Your task to perform on an android device: create a new album in the google photos Image 0: 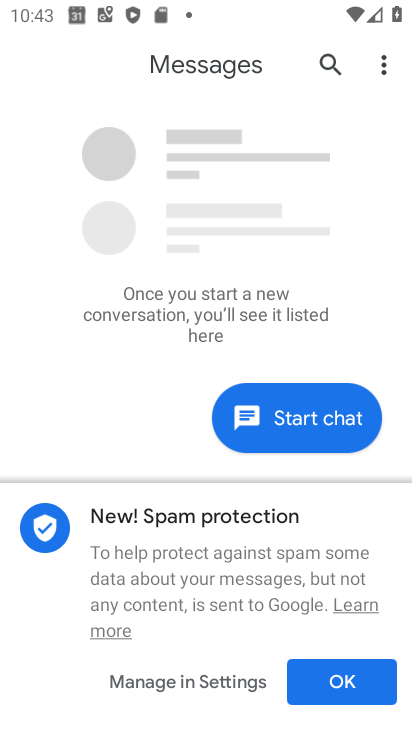
Step 0: press home button
Your task to perform on an android device: create a new album in the google photos Image 1: 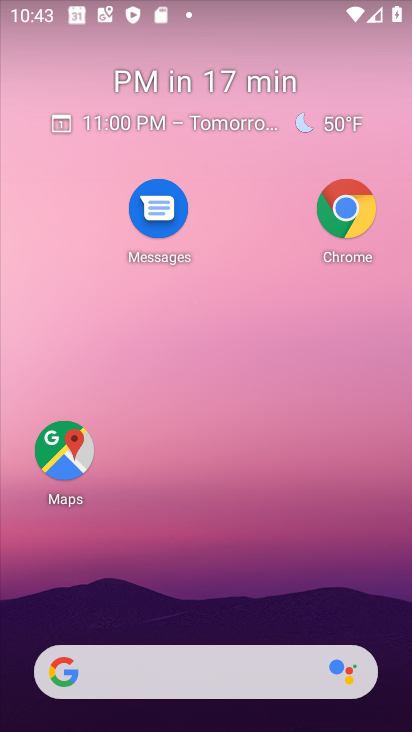
Step 1: drag from (192, 645) to (368, 17)
Your task to perform on an android device: create a new album in the google photos Image 2: 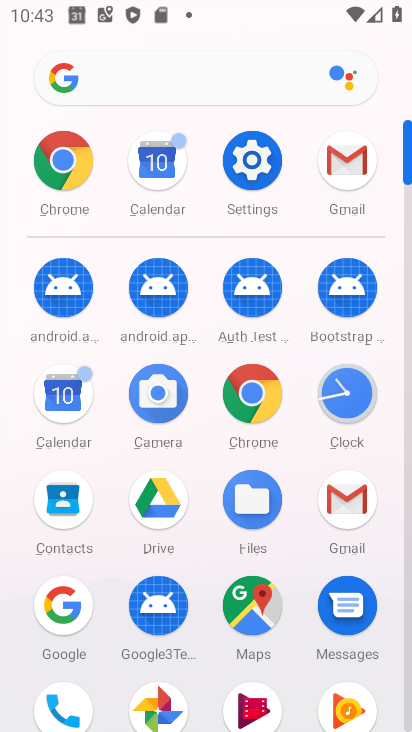
Step 2: click (163, 687)
Your task to perform on an android device: create a new album in the google photos Image 3: 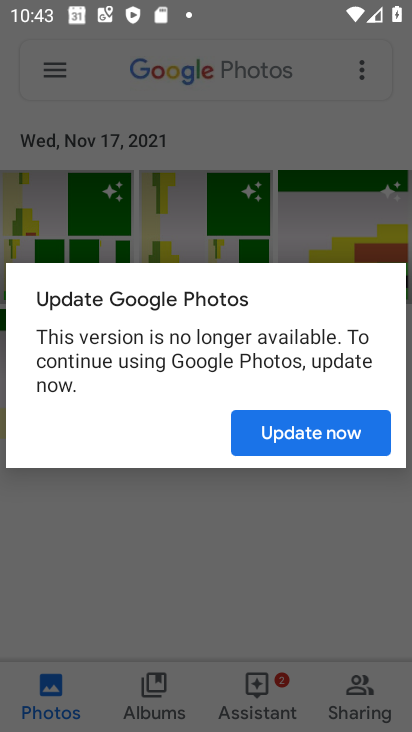
Step 3: click (80, 219)
Your task to perform on an android device: create a new album in the google photos Image 4: 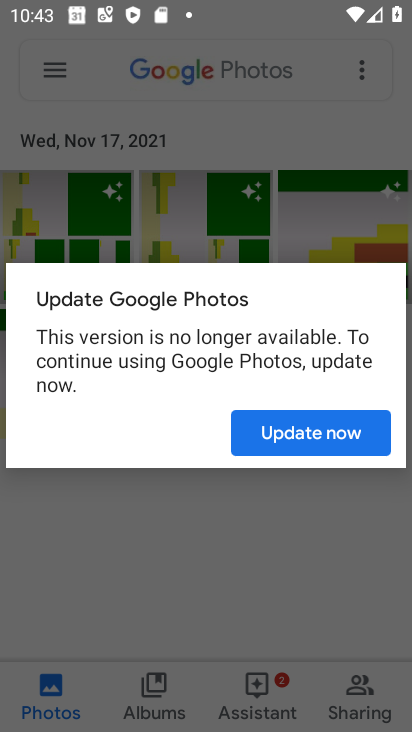
Step 4: click (291, 445)
Your task to perform on an android device: create a new album in the google photos Image 5: 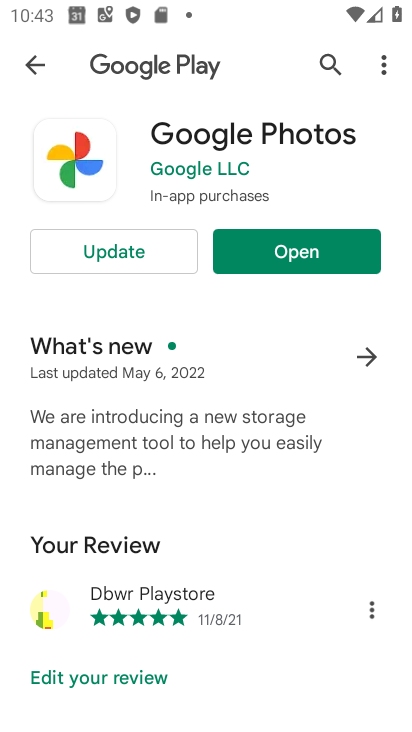
Step 5: click (274, 252)
Your task to perform on an android device: create a new album in the google photos Image 6: 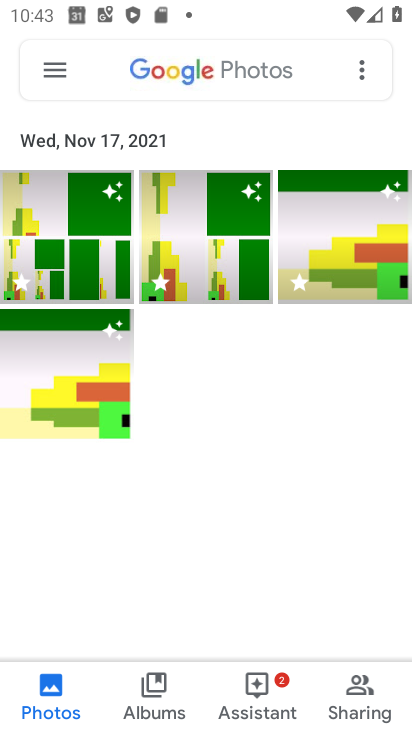
Step 6: click (124, 262)
Your task to perform on an android device: create a new album in the google photos Image 7: 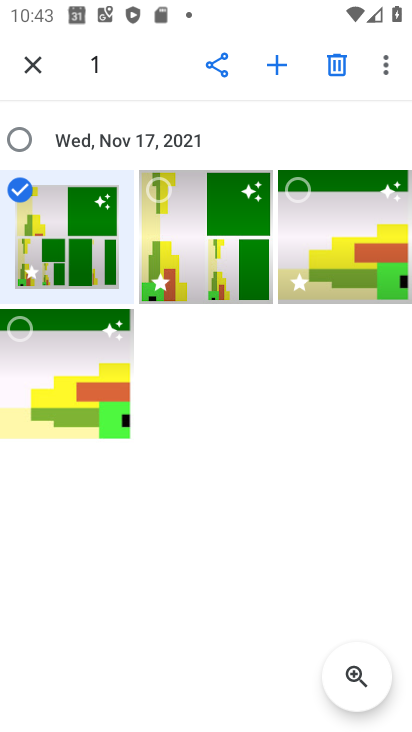
Step 7: click (274, 77)
Your task to perform on an android device: create a new album in the google photos Image 8: 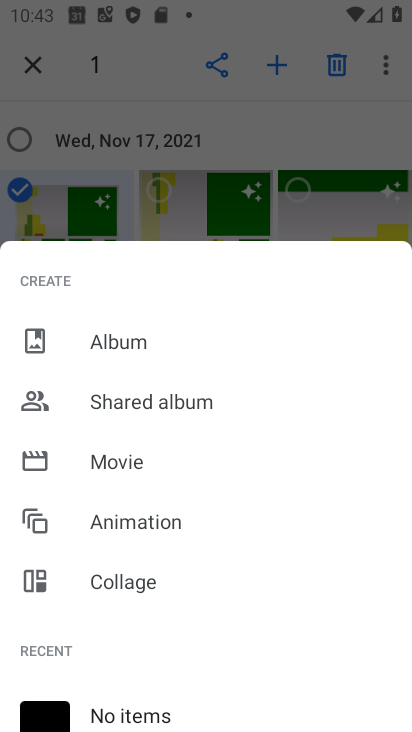
Step 8: click (171, 349)
Your task to perform on an android device: create a new album in the google photos Image 9: 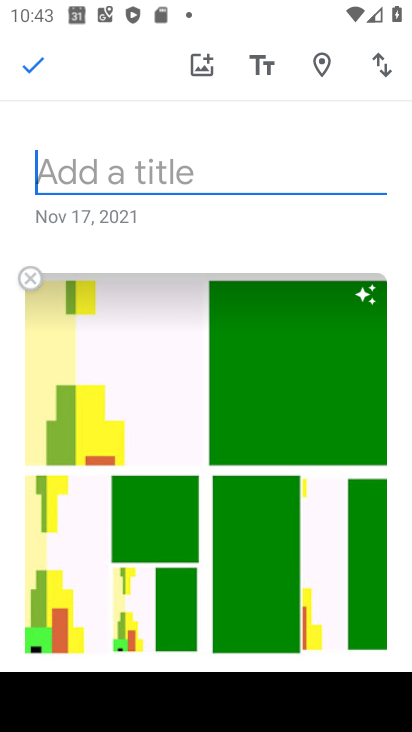
Step 9: type "lop"
Your task to perform on an android device: create a new album in the google photos Image 10: 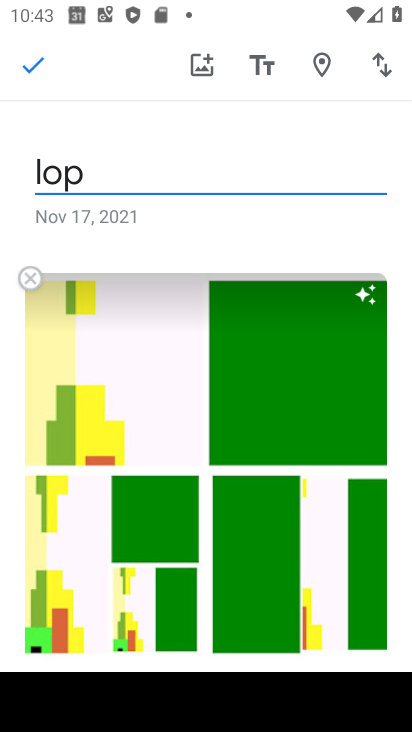
Step 10: click (22, 69)
Your task to perform on an android device: create a new album in the google photos Image 11: 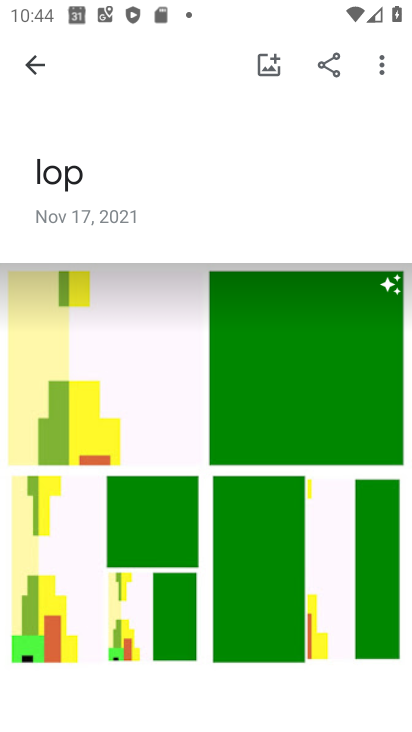
Step 11: task complete